Your task to perform on an android device: Open the web browser Image 0: 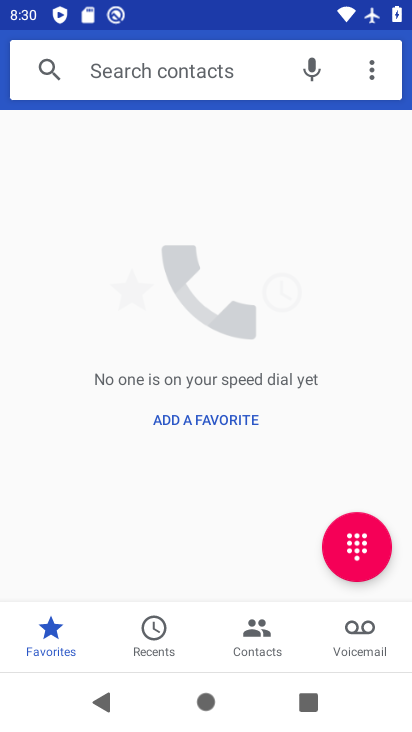
Step 0: press home button
Your task to perform on an android device: Open the web browser Image 1: 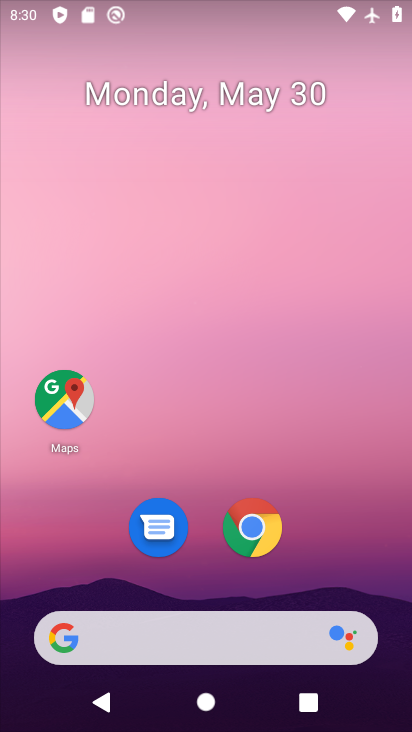
Step 1: click (255, 521)
Your task to perform on an android device: Open the web browser Image 2: 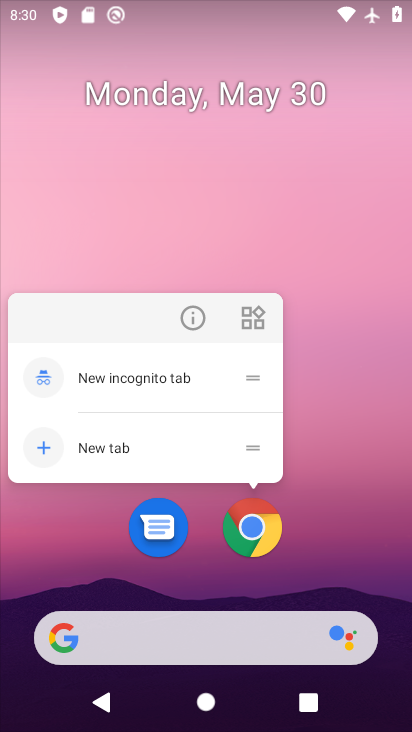
Step 2: click (255, 520)
Your task to perform on an android device: Open the web browser Image 3: 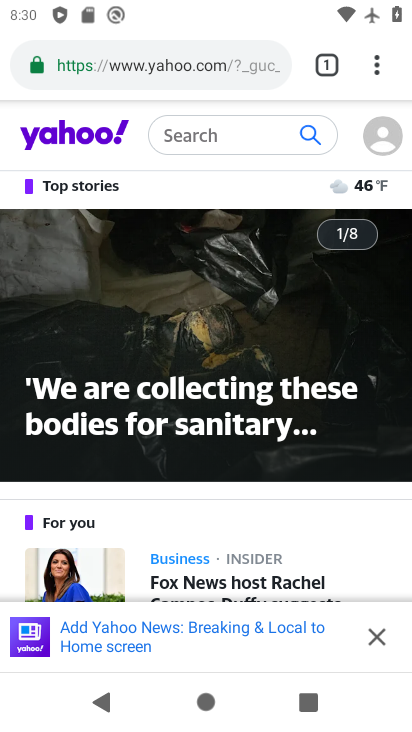
Step 3: task complete